Your task to perform on an android device: What's the weather going to be this weekend? Image 0: 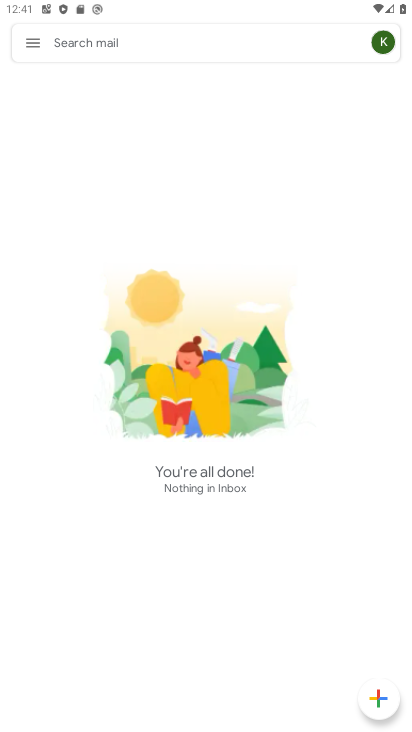
Step 0: press home button
Your task to perform on an android device: What's the weather going to be this weekend? Image 1: 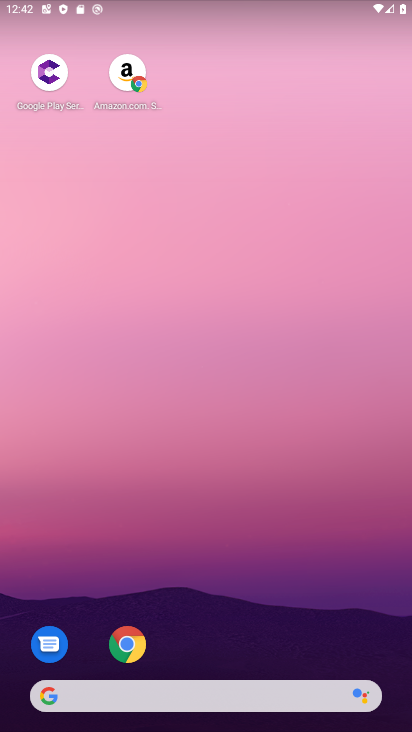
Step 1: drag from (166, 624) to (251, 212)
Your task to perform on an android device: What's the weather going to be this weekend? Image 2: 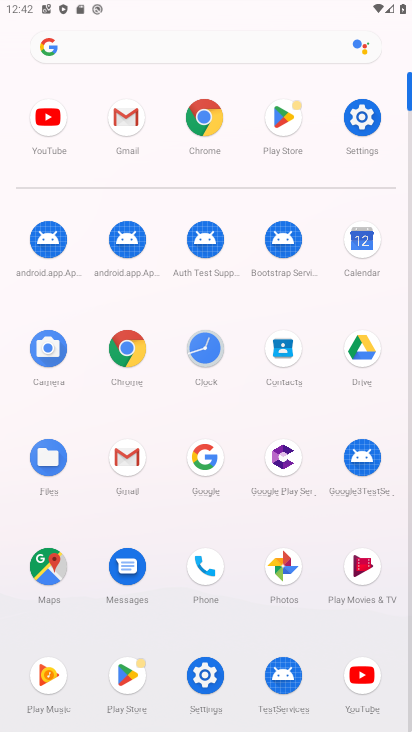
Step 2: click (205, 127)
Your task to perform on an android device: What's the weather going to be this weekend? Image 3: 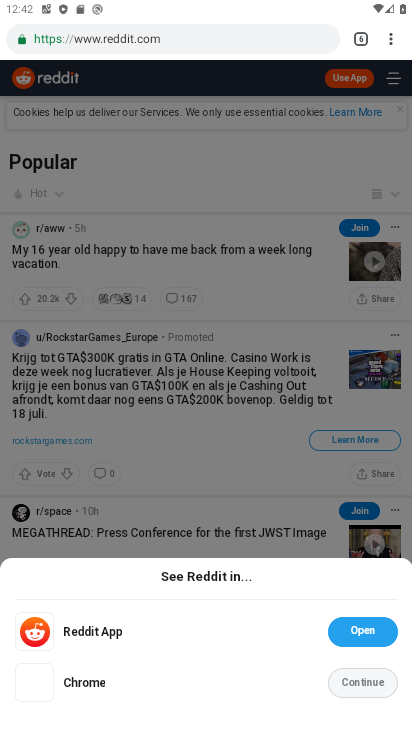
Step 3: click (367, 28)
Your task to perform on an android device: What's the weather going to be this weekend? Image 4: 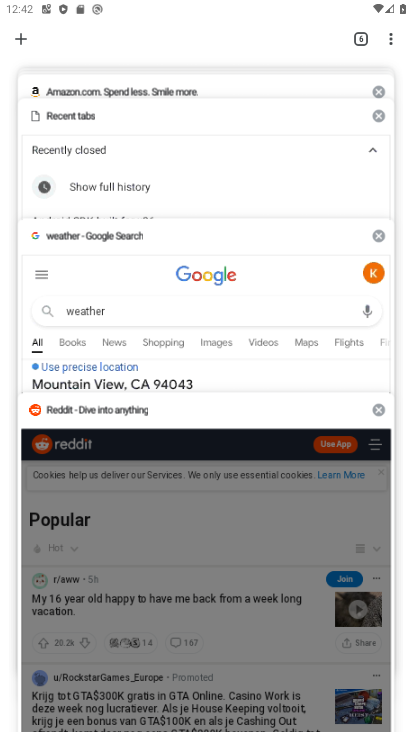
Step 4: click (21, 40)
Your task to perform on an android device: What's the weather going to be this weekend? Image 5: 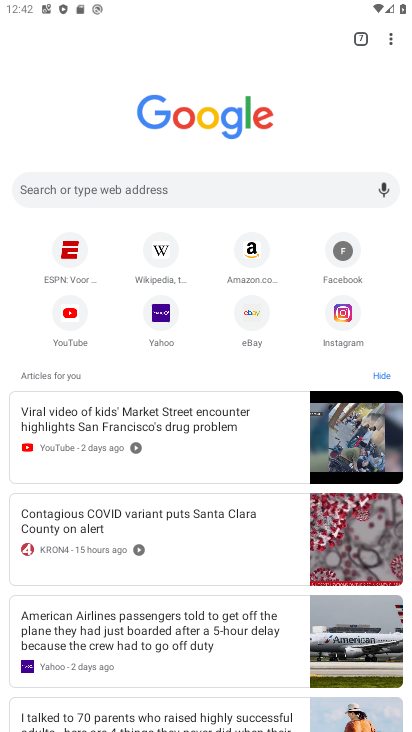
Step 5: click (133, 190)
Your task to perform on an android device: What's the weather going to be this weekend? Image 6: 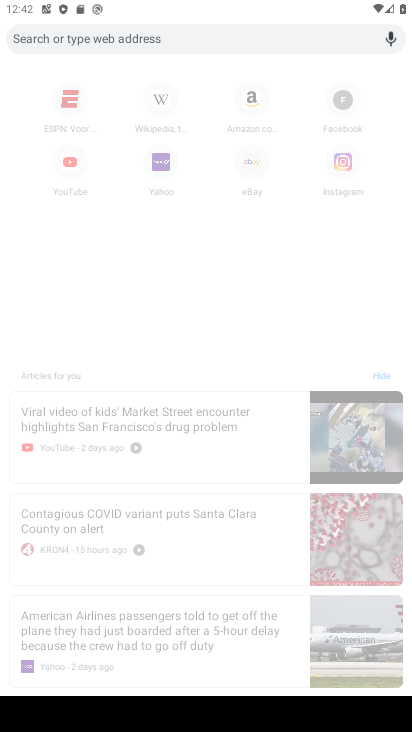
Step 6: type "weather"
Your task to perform on an android device: What's the weather going to be this weekend? Image 7: 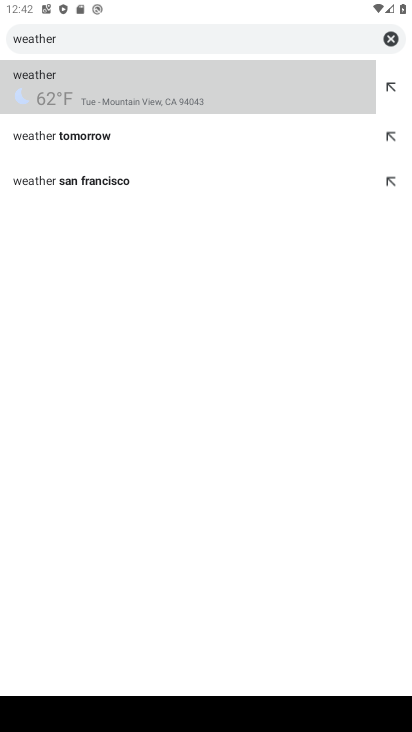
Step 7: click (76, 87)
Your task to perform on an android device: What's the weather going to be this weekend? Image 8: 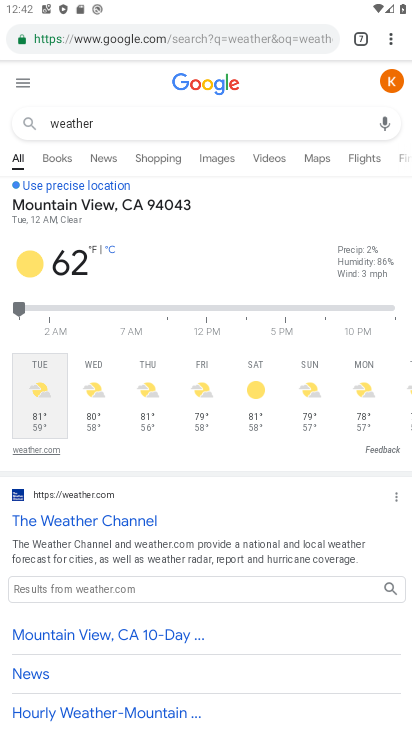
Step 8: click (259, 377)
Your task to perform on an android device: What's the weather going to be this weekend? Image 9: 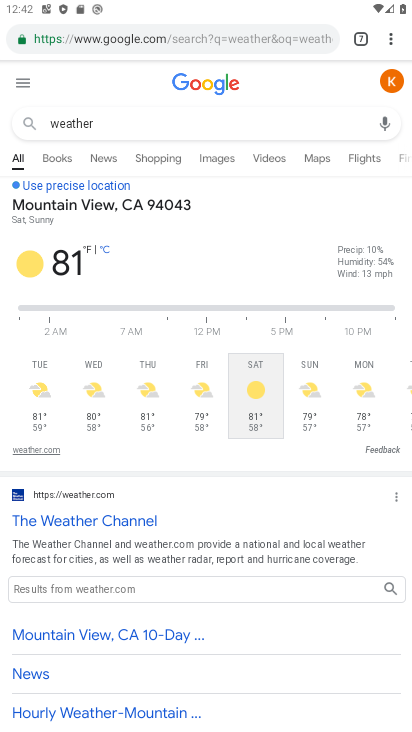
Step 9: task complete